Your task to perform on an android device: find photos in the google photos app Image 0: 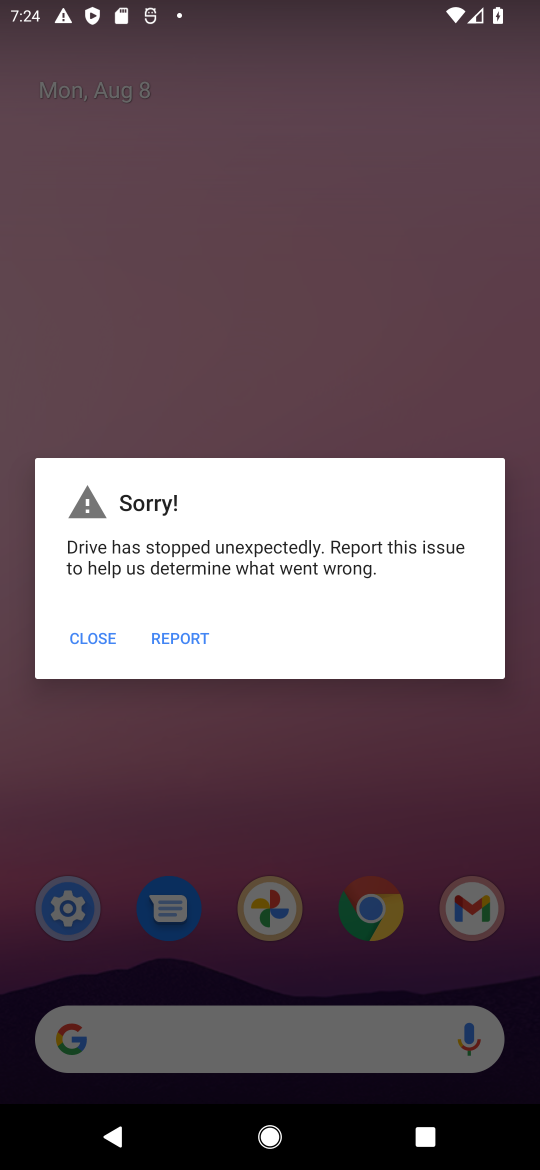
Step 0: click (76, 637)
Your task to perform on an android device: find photos in the google photos app Image 1: 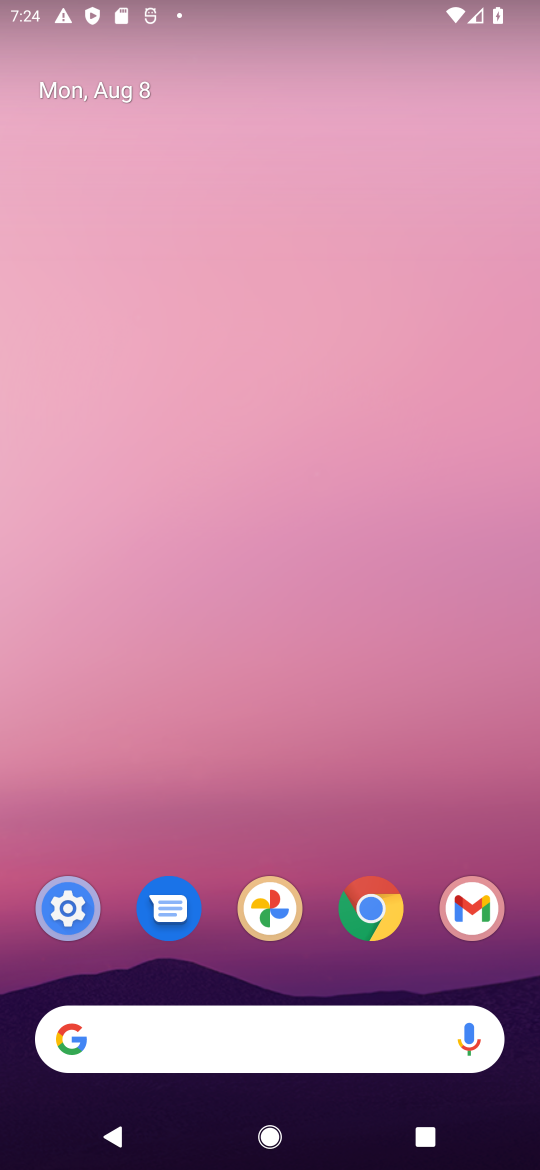
Step 1: click (295, 909)
Your task to perform on an android device: find photos in the google photos app Image 2: 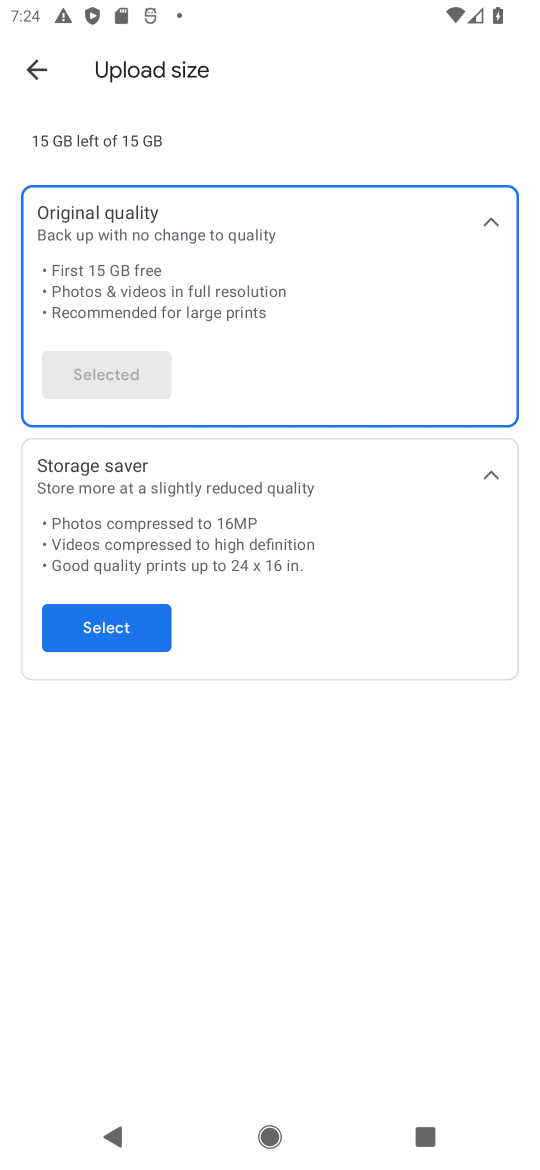
Step 2: click (36, 64)
Your task to perform on an android device: find photos in the google photos app Image 3: 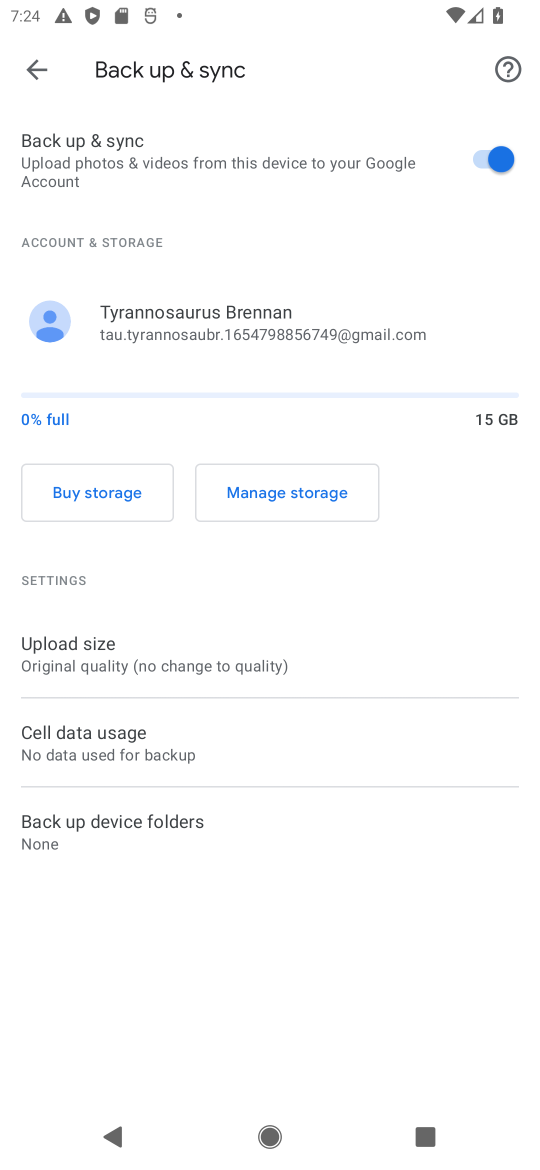
Step 3: click (36, 64)
Your task to perform on an android device: find photos in the google photos app Image 4: 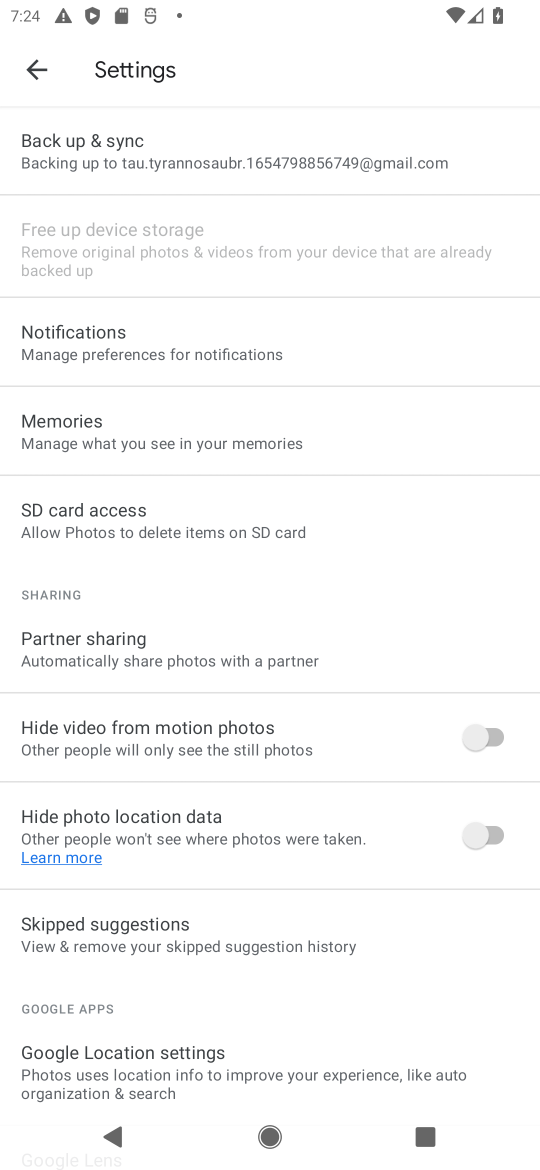
Step 4: click (36, 64)
Your task to perform on an android device: find photos in the google photos app Image 5: 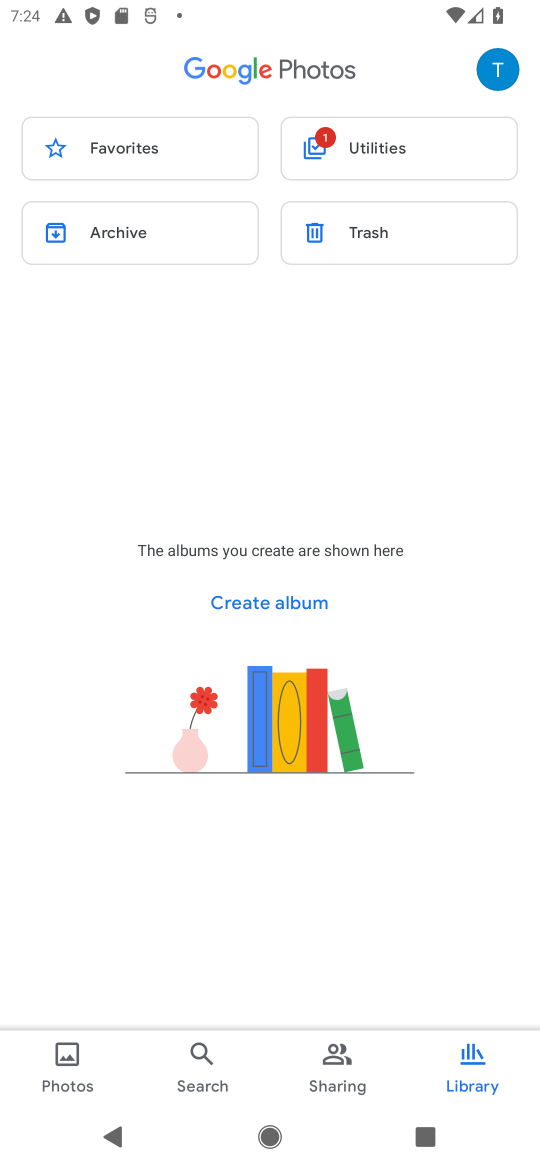
Step 5: click (74, 1059)
Your task to perform on an android device: find photos in the google photos app Image 6: 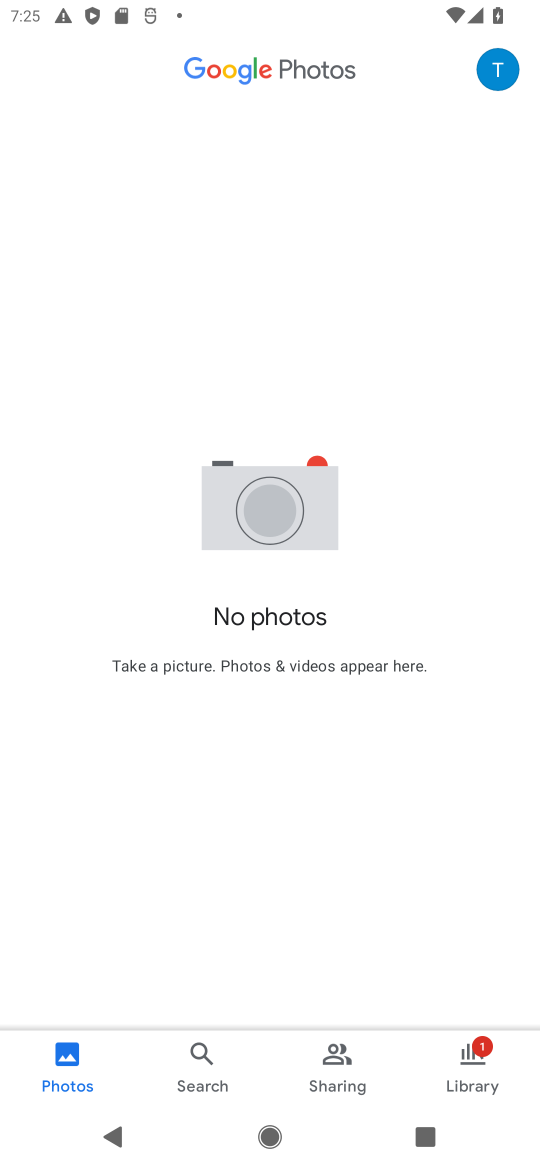
Step 6: task complete